Your task to perform on an android device: uninstall "Google Pay: Save, Pay, Manage" Image 0: 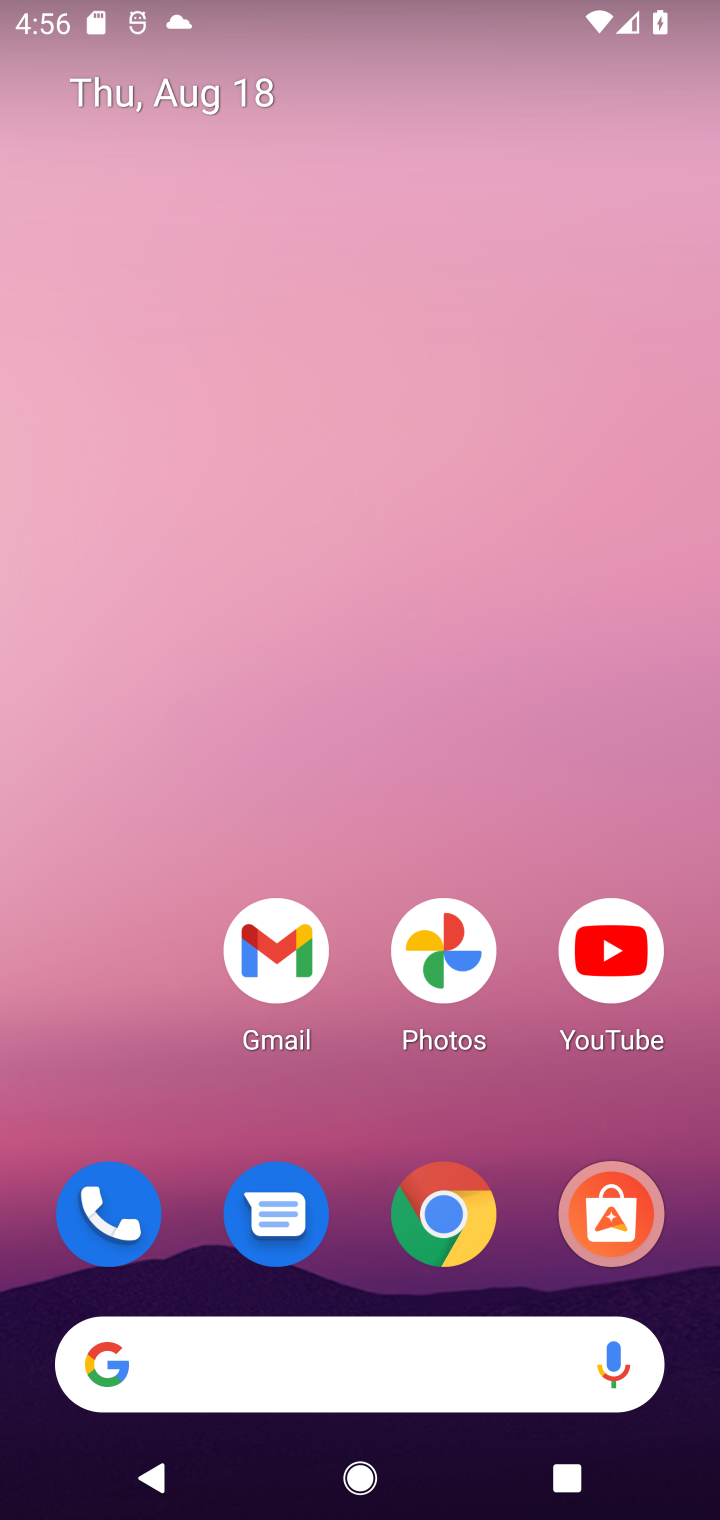
Step 0: drag from (333, 1160) to (347, 4)
Your task to perform on an android device: uninstall "Google Pay: Save, Pay, Manage" Image 1: 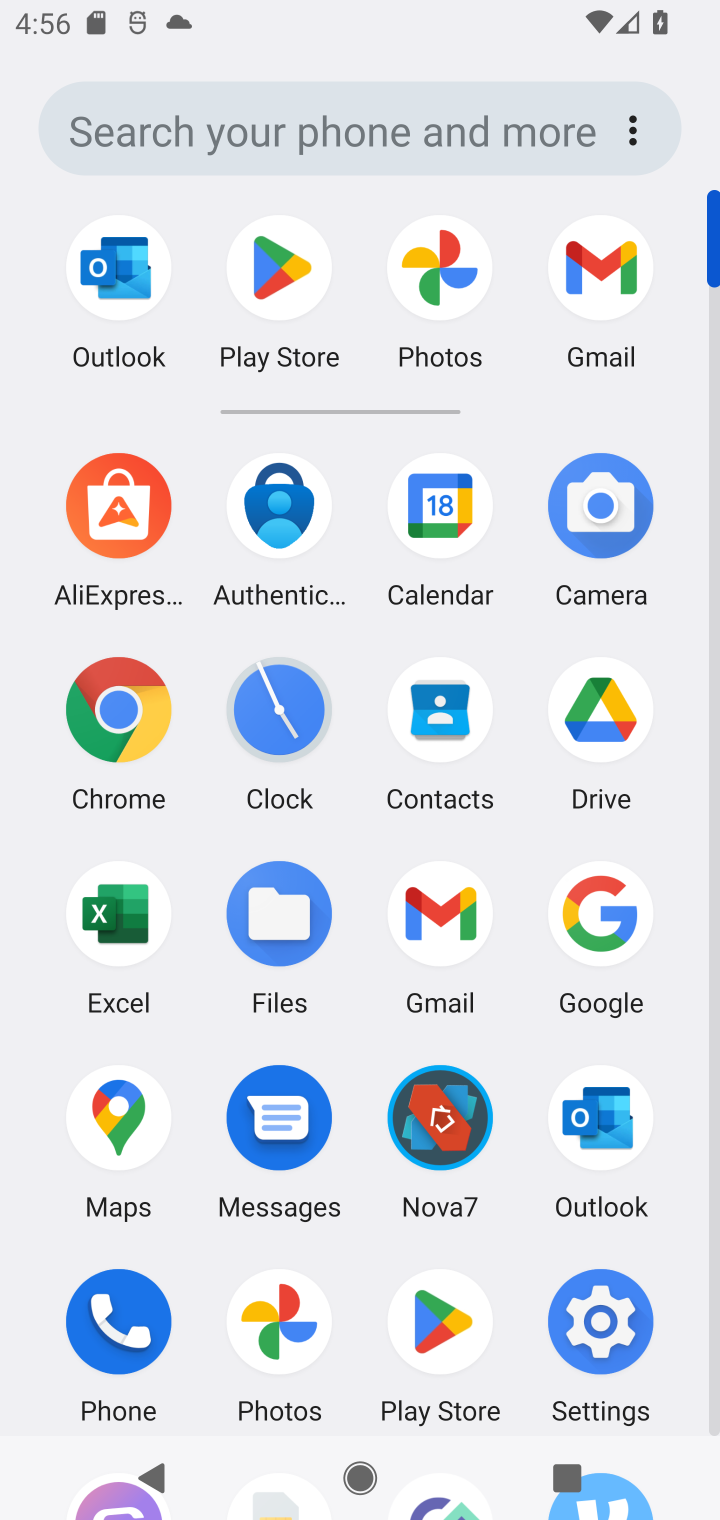
Step 1: click (264, 295)
Your task to perform on an android device: uninstall "Google Pay: Save, Pay, Manage" Image 2: 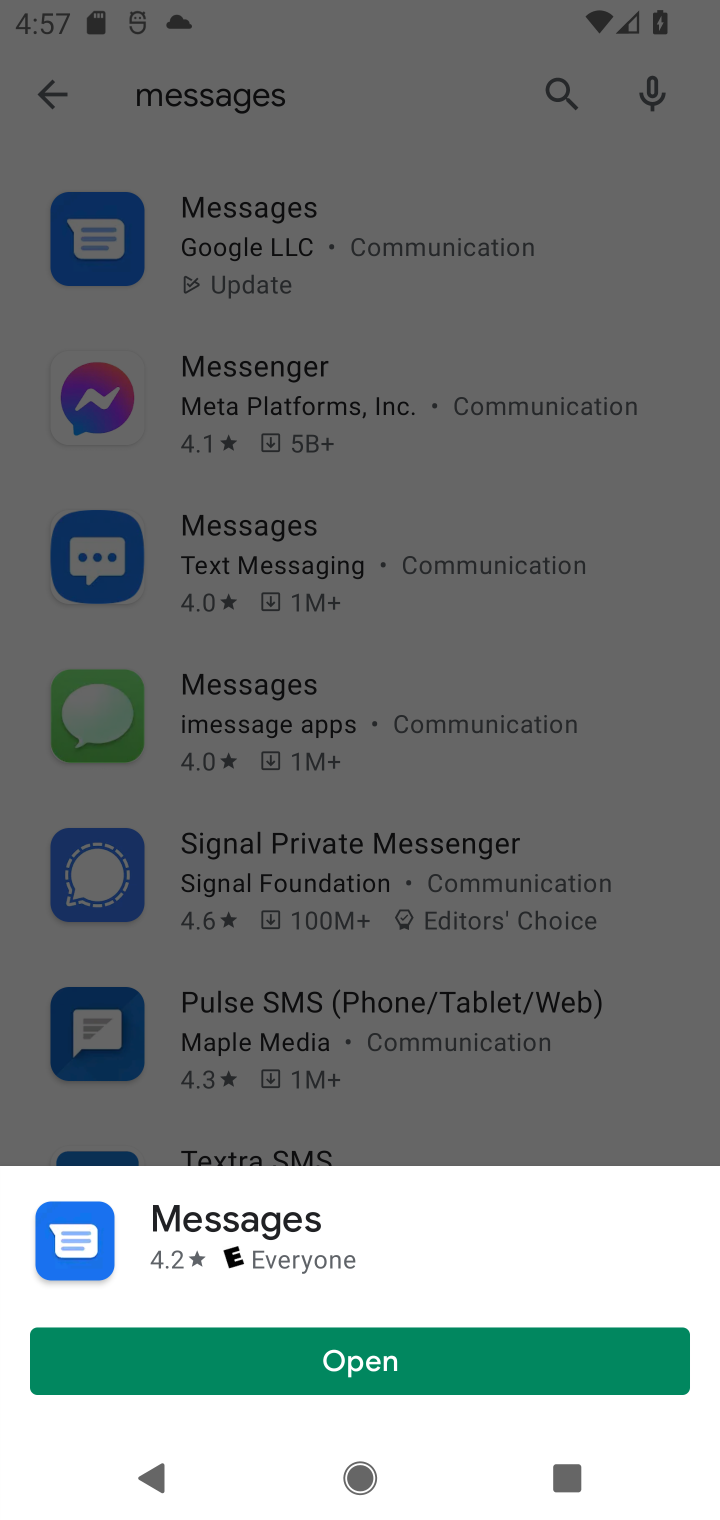
Step 2: click (217, 97)
Your task to perform on an android device: uninstall "Google Pay: Save, Pay, Manage" Image 3: 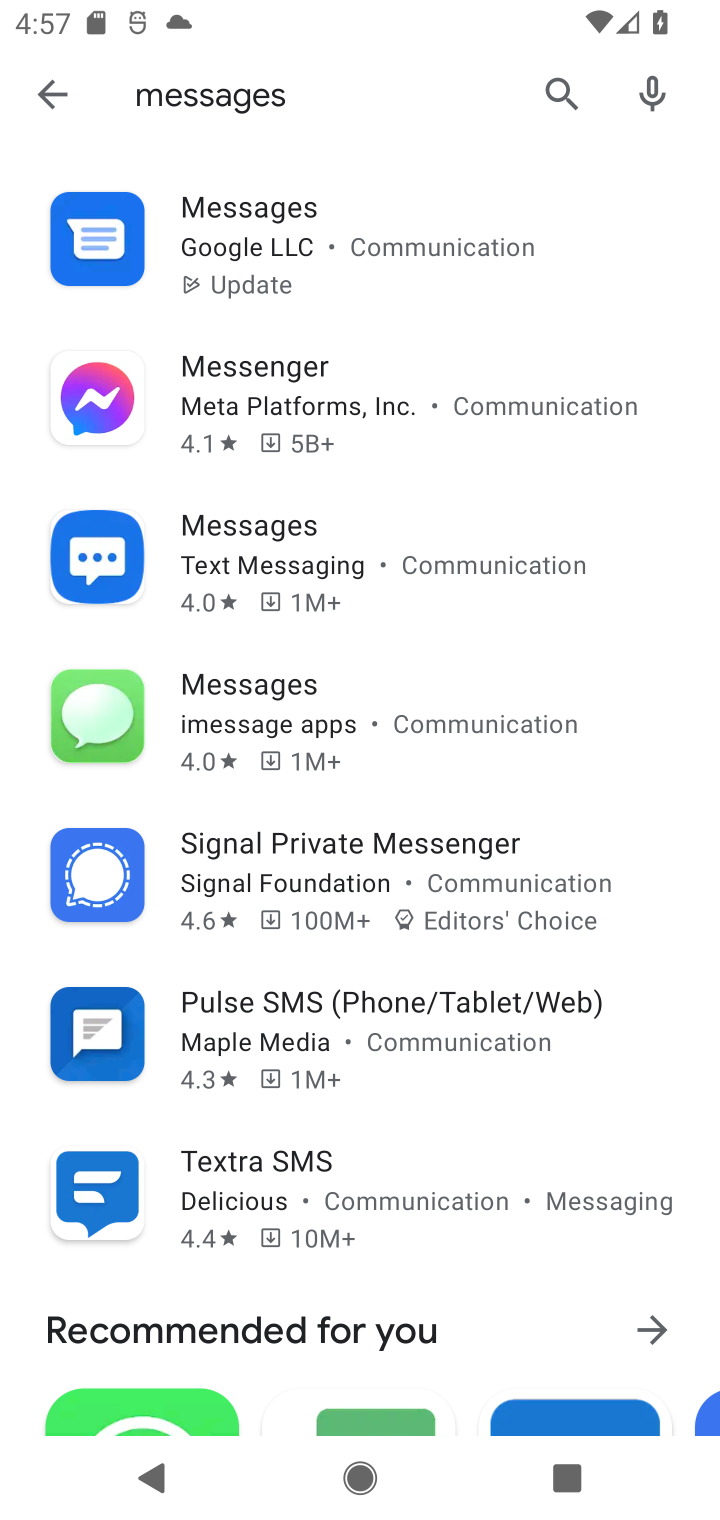
Step 3: click (217, 97)
Your task to perform on an android device: uninstall "Google Pay: Save, Pay, Manage" Image 4: 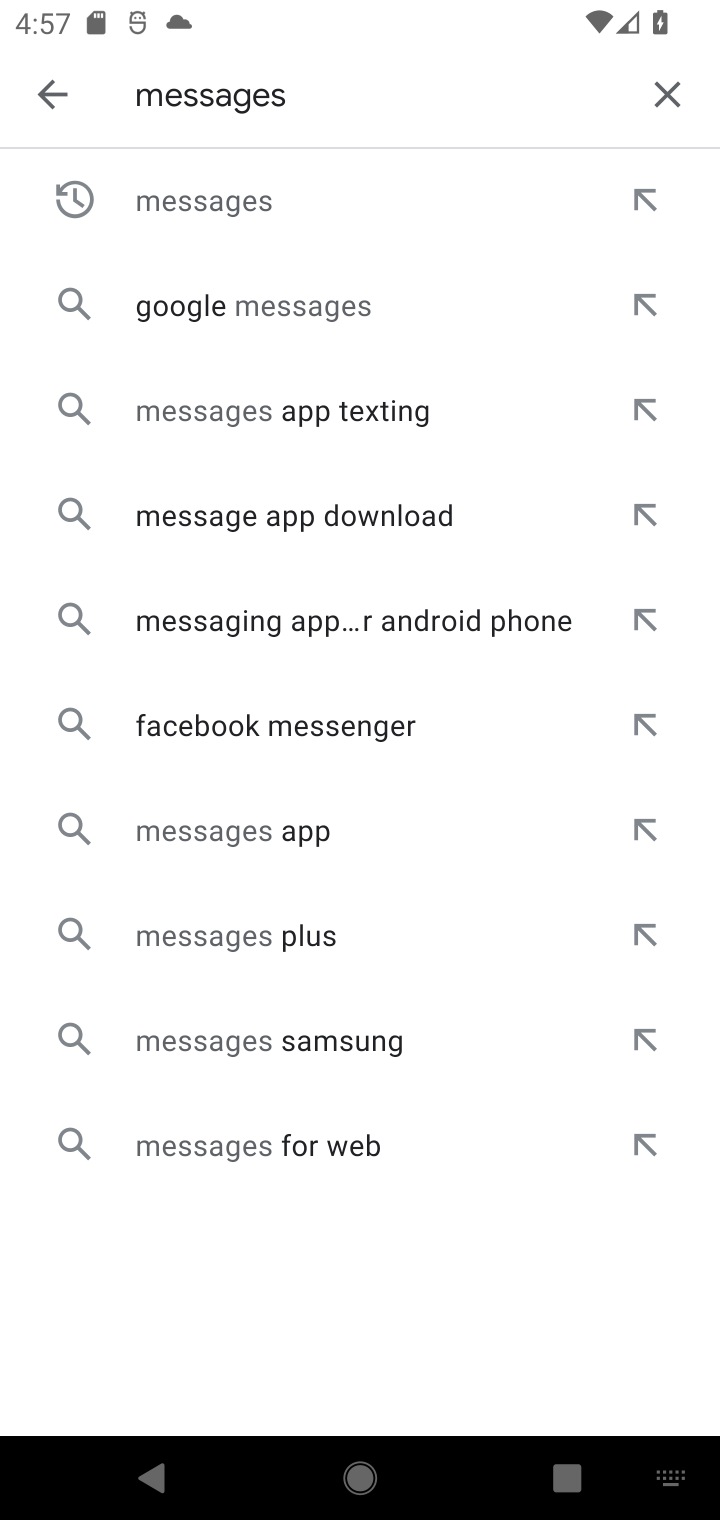
Step 4: click (663, 84)
Your task to perform on an android device: uninstall "Google Pay: Save, Pay, Manage" Image 5: 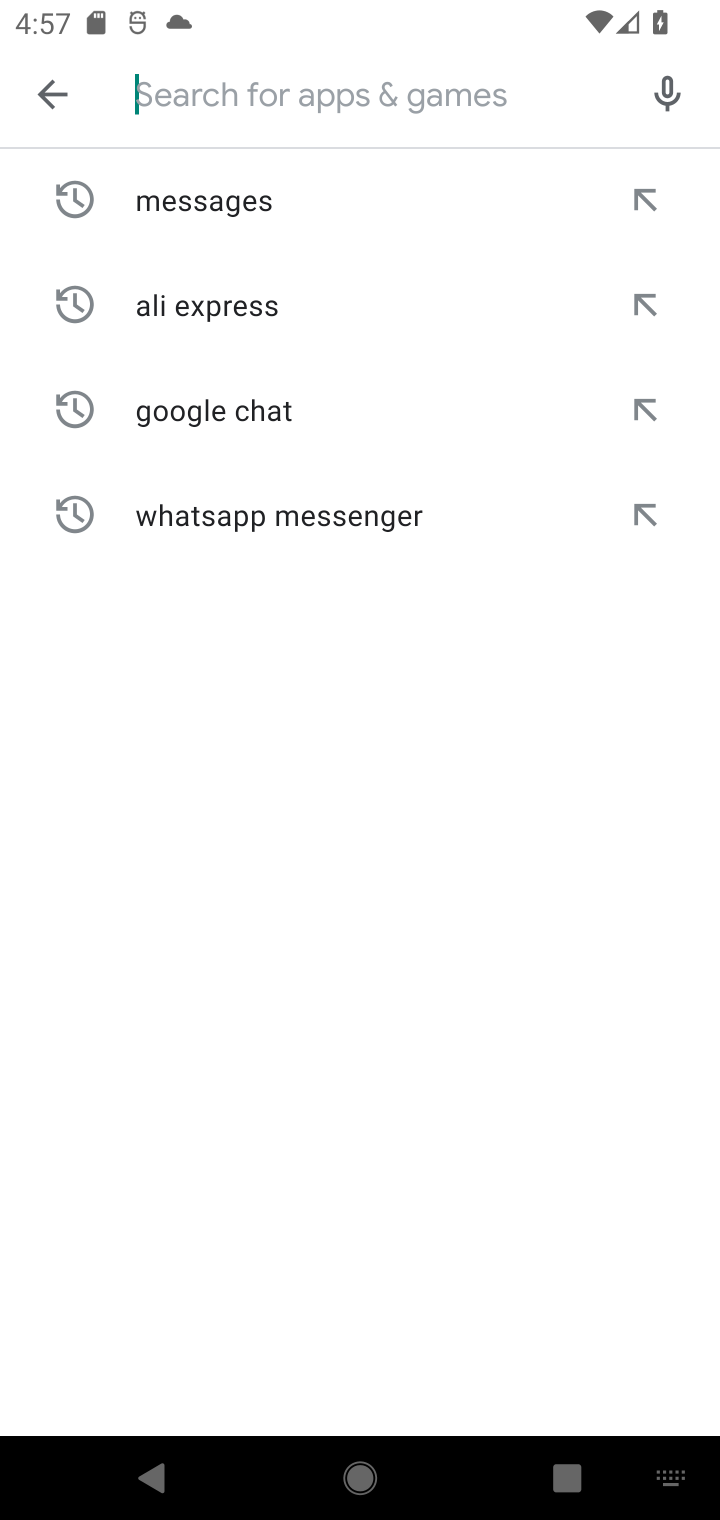
Step 5: type "google pay"
Your task to perform on an android device: uninstall "Google Pay: Save, Pay, Manage" Image 6: 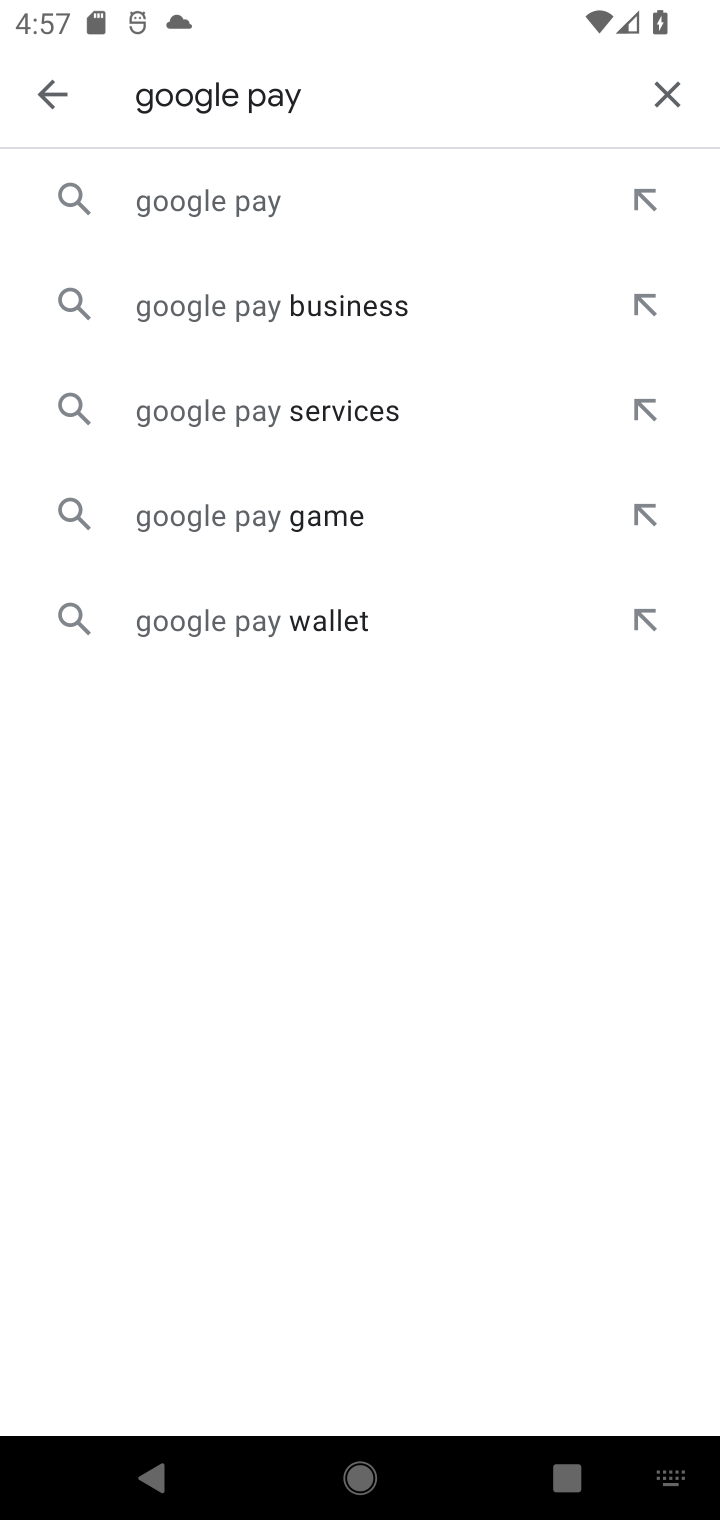
Step 6: click (242, 206)
Your task to perform on an android device: uninstall "Google Pay: Save, Pay, Manage" Image 7: 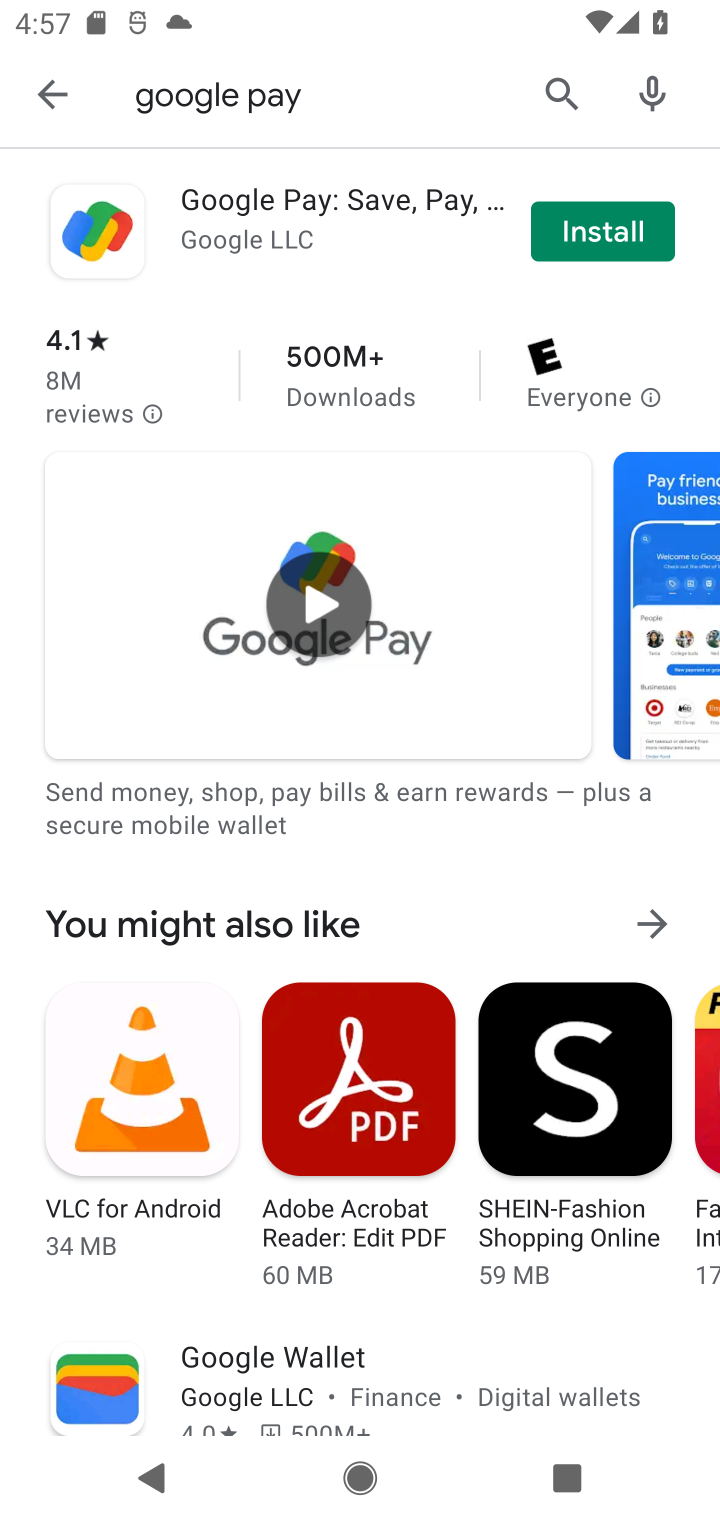
Step 7: task complete